Your task to perform on an android device: Go to privacy settings Image 0: 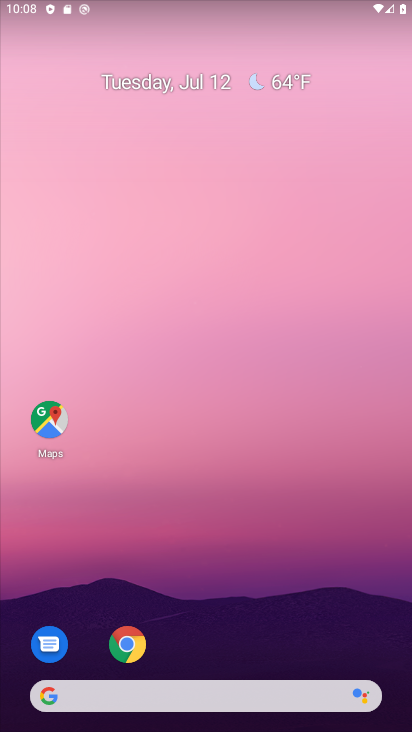
Step 0: drag from (203, 662) to (164, 48)
Your task to perform on an android device: Go to privacy settings Image 1: 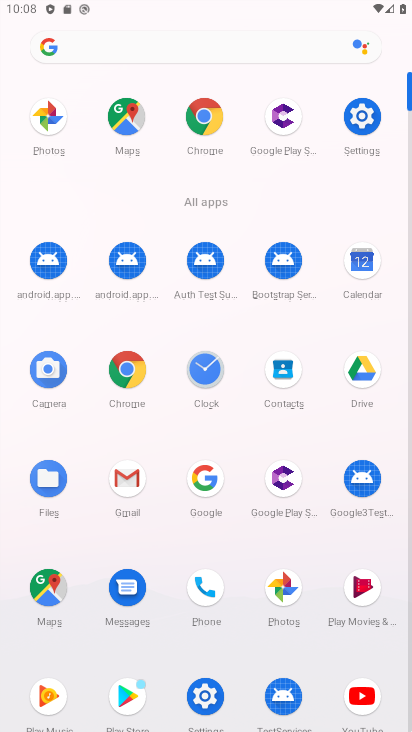
Step 1: click (347, 125)
Your task to perform on an android device: Go to privacy settings Image 2: 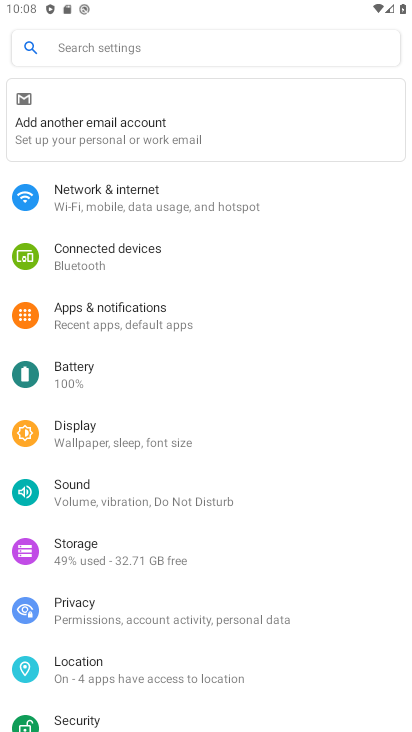
Step 2: click (192, 629)
Your task to perform on an android device: Go to privacy settings Image 3: 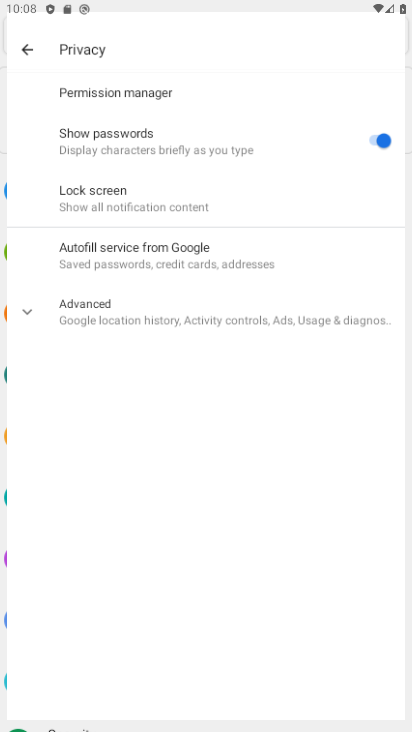
Step 3: task complete